Your task to perform on an android device: turn on location history Image 0: 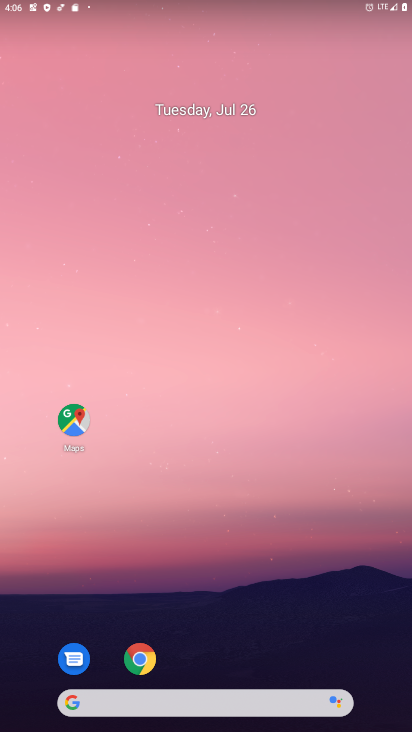
Step 0: drag from (247, 623) to (232, 114)
Your task to perform on an android device: turn on location history Image 1: 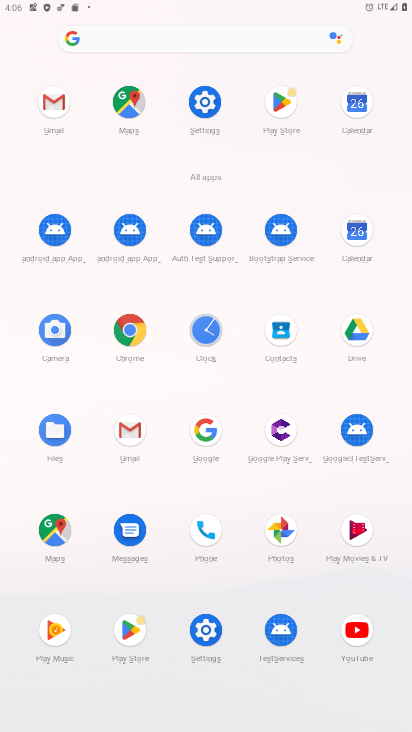
Step 1: click (206, 108)
Your task to perform on an android device: turn on location history Image 2: 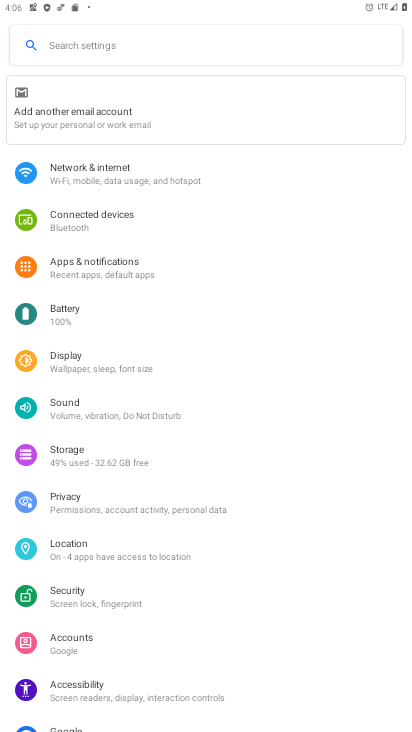
Step 2: click (77, 556)
Your task to perform on an android device: turn on location history Image 3: 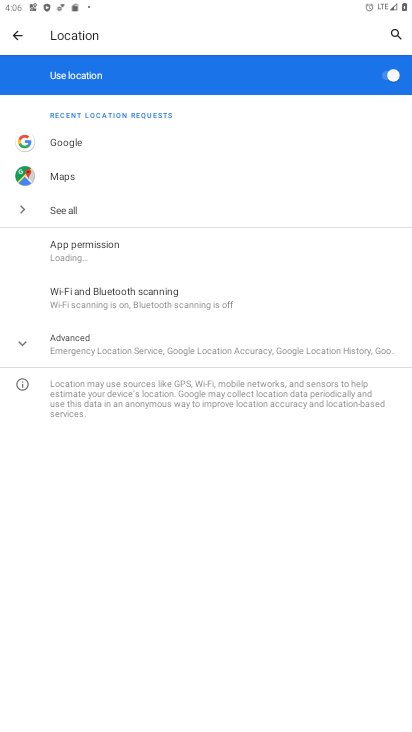
Step 3: click (65, 351)
Your task to perform on an android device: turn on location history Image 4: 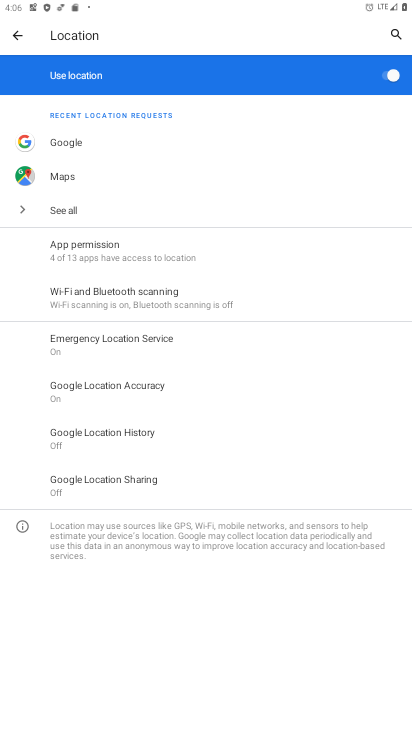
Step 4: click (96, 441)
Your task to perform on an android device: turn on location history Image 5: 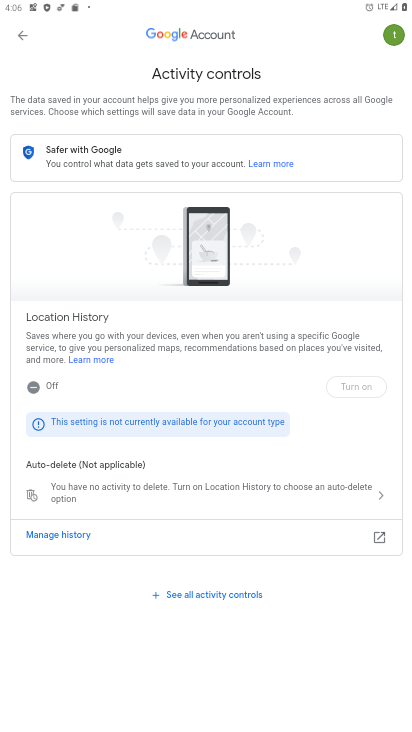
Step 5: click (356, 380)
Your task to perform on an android device: turn on location history Image 6: 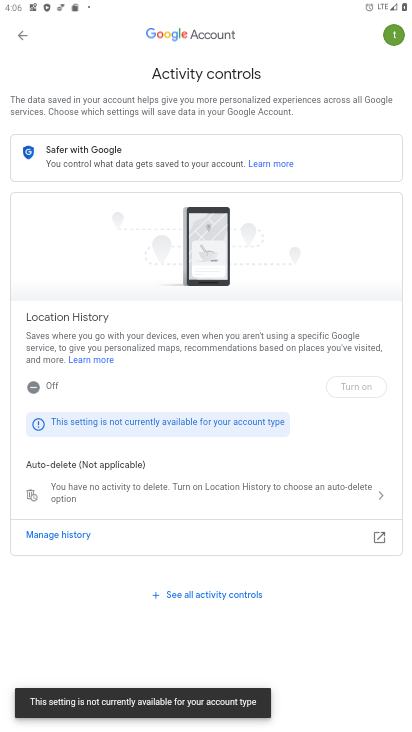
Step 6: click (366, 386)
Your task to perform on an android device: turn on location history Image 7: 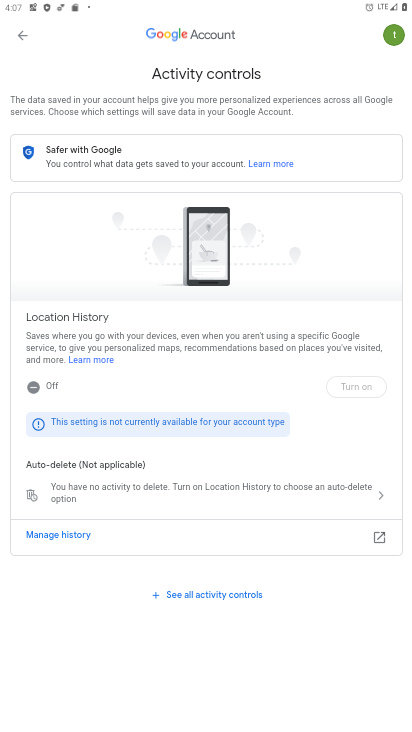
Step 7: click (366, 386)
Your task to perform on an android device: turn on location history Image 8: 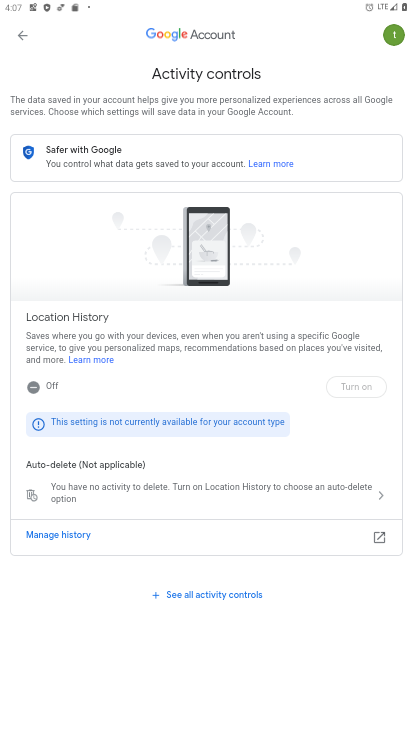
Step 8: click (366, 386)
Your task to perform on an android device: turn on location history Image 9: 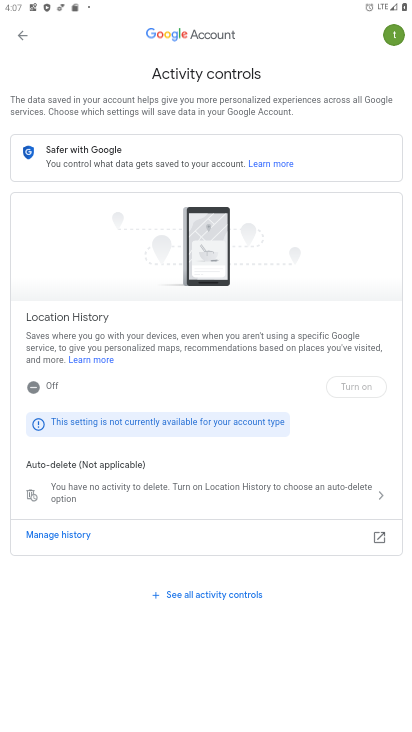
Step 9: task complete